Your task to perform on an android device: Open Reddit.com Image 0: 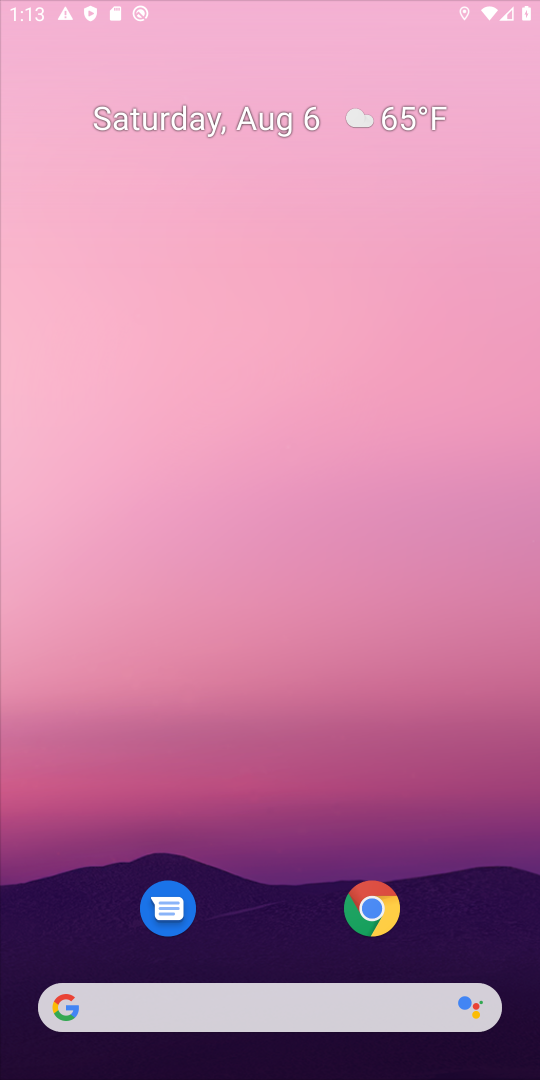
Step 0: press home button
Your task to perform on an android device: Open Reddit.com Image 1: 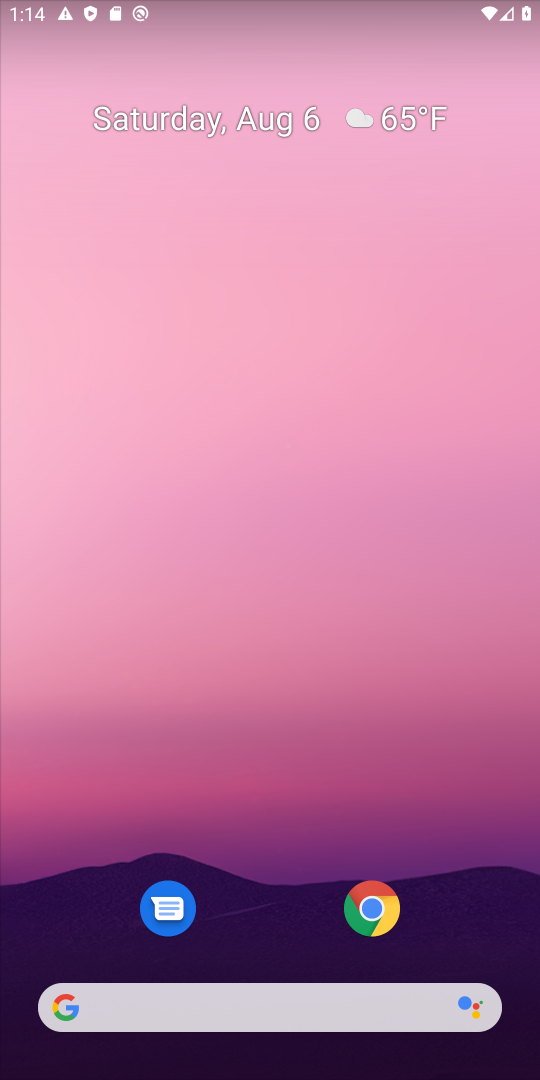
Step 1: click (371, 900)
Your task to perform on an android device: Open Reddit.com Image 2: 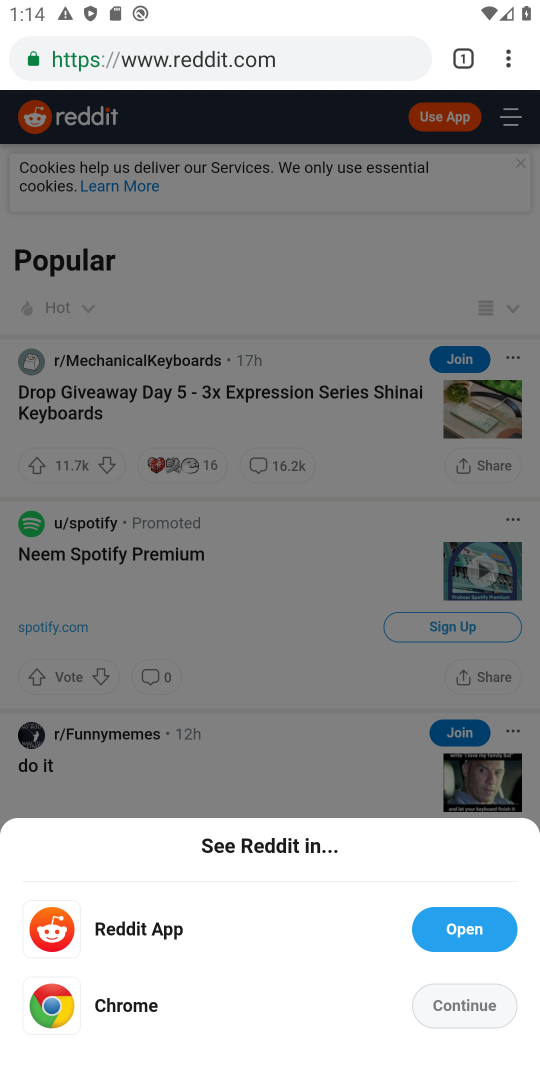
Step 2: task complete